Your task to perform on an android device: turn on translation in the chrome app Image 0: 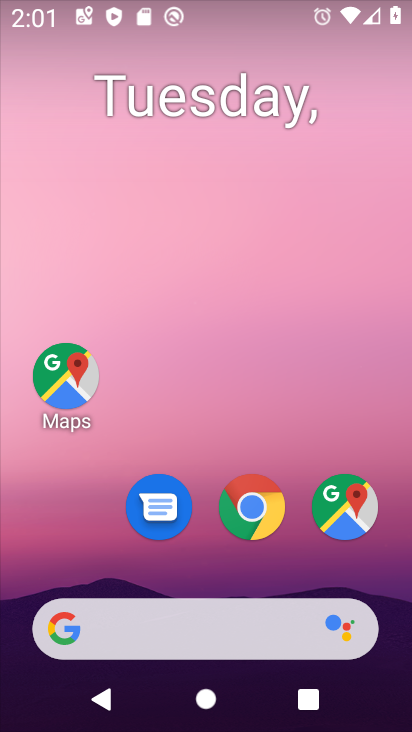
Step 0: drag from (284, 503) to (317, 229)
Your task to perform on an android device: turn on translation in the chrome app Image 1: 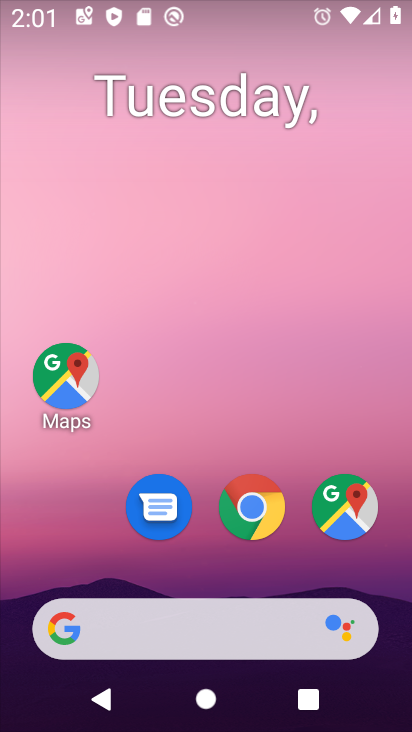
Step 1: click (255, 510)
Your task to perform on an android device: turn on translation in the chrome app Image 2: 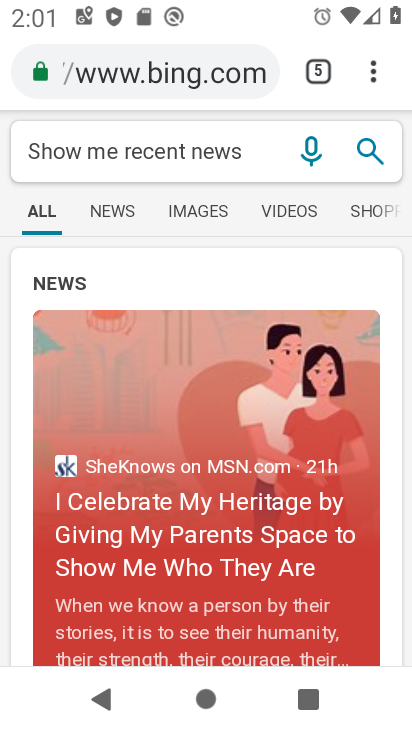
Step 2: click (371, 61)
Your task to perform on an android device: turn on translation in the chrome app Image 3: 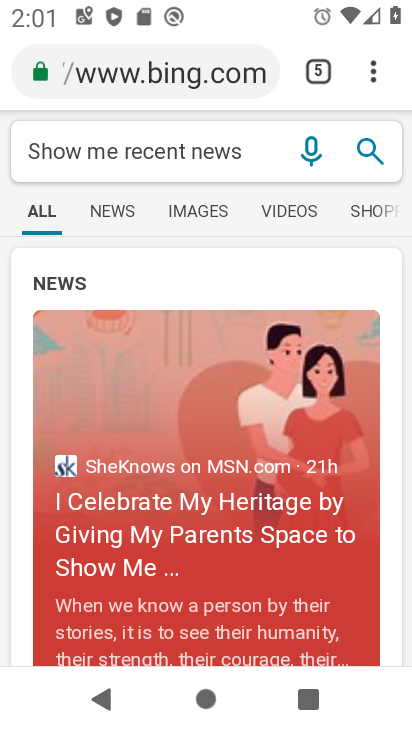
Step 3: click (367, 66)
Your task to perform on an android device: turn on translation in the chrome app Image 4: 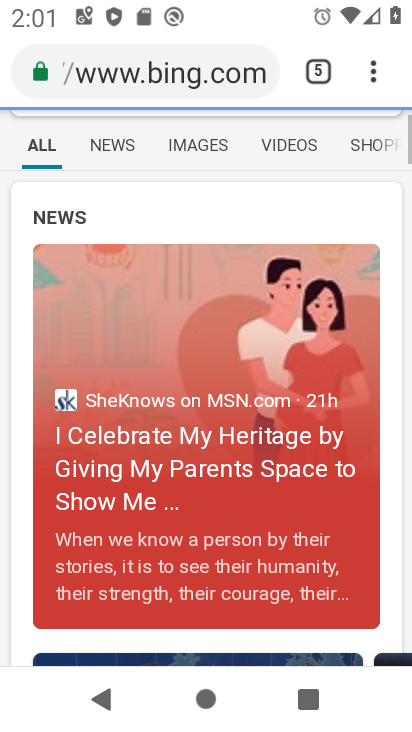
Step 4: click (367, 66)
Your task to perform on an android device: turn on translation in the chrome app Image 5: 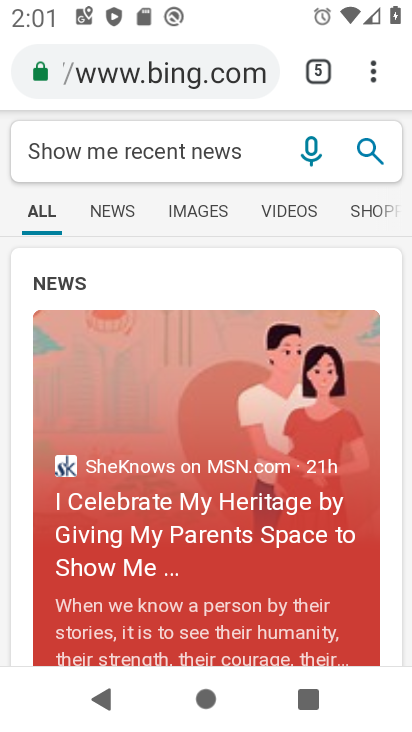
Step 5: click (378, 75)
Your task to perform on an android device: turn on translation in the chrome app Image 6: 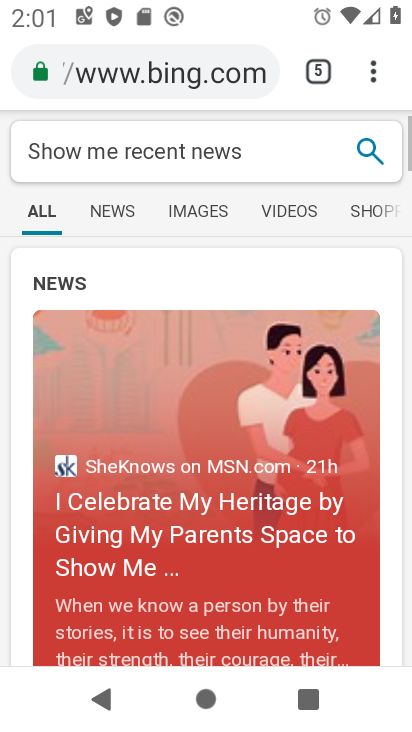
Step 6: click (381, 67)
Your task to perform on an android device: turn on translation in the chrome app Image 7: 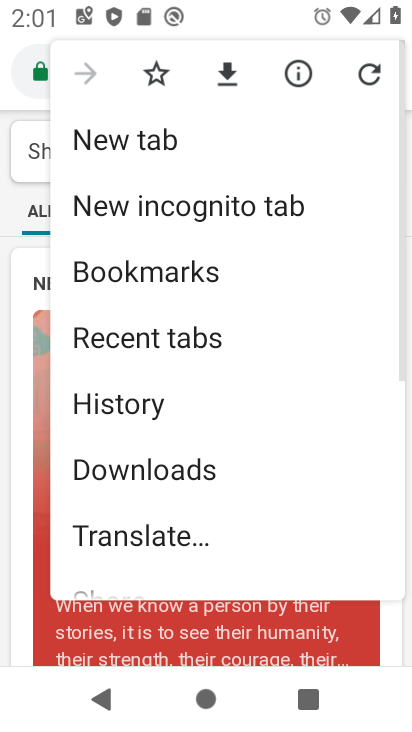
Step 7: drag from (169, 504) to (226, 195)
Your task to perform on an android device: turn on translation in the chrome app Image 8: 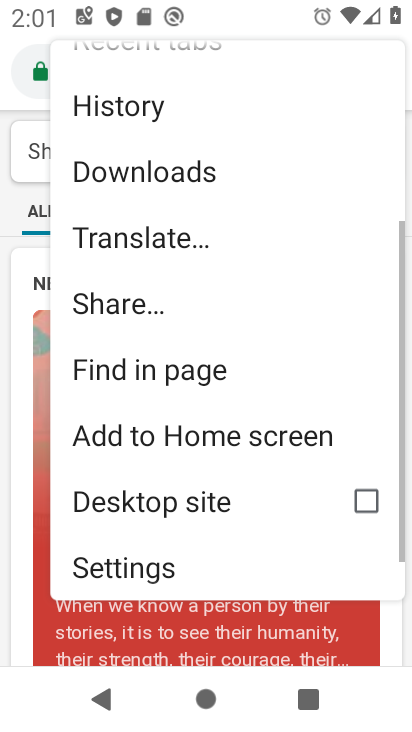
Step 8: drag from (183, 437) to (220, 319)
Your task to perform on an android device: turn on translation in the chrome app Image 9: 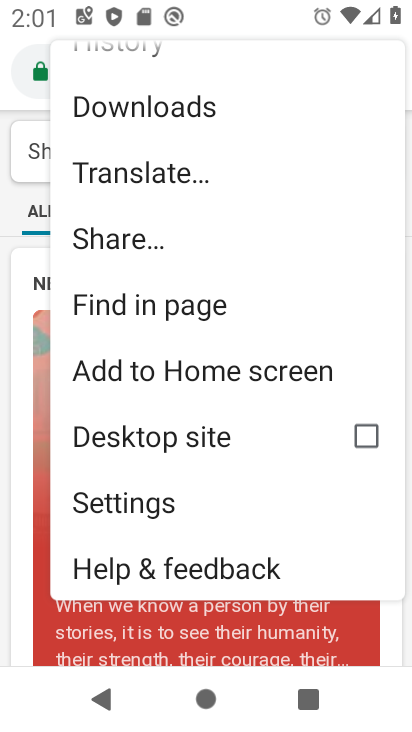
Step 9: click (172, 493)
Your task to perform on an android device: turn on translation in the chrome app Image 10: 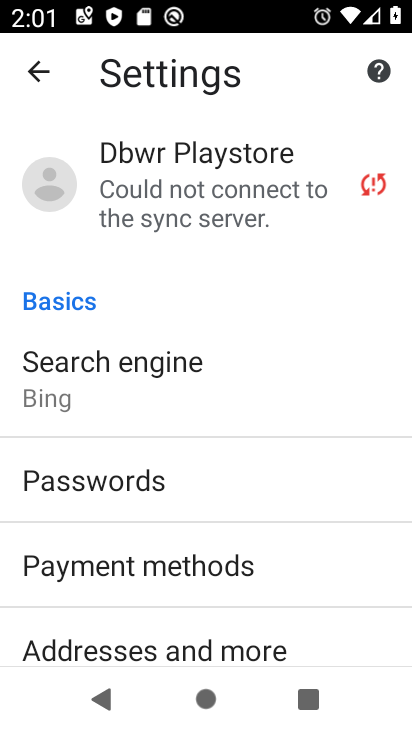
Step 10: drag from (125, 637) to (247, 300)
Your task to perform on an android device: turn on translation in the chrome app Image 11: 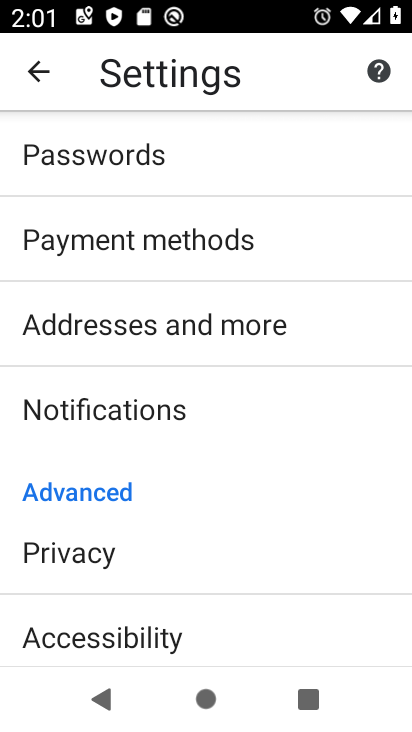
Step 11: drag from (179, 568) to (239, 307)
Your task to perform on an android device: turn on translation in the chrome app Image 12: 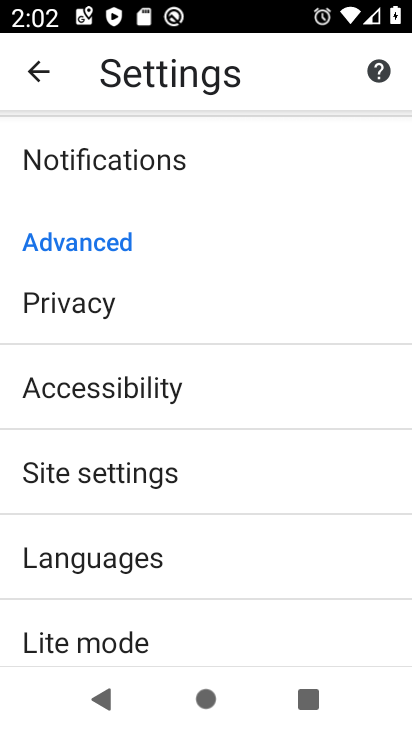
Step 12: click (169, 541)
Your task to perform on an android device: turn on translation in the chrome app Image 13: 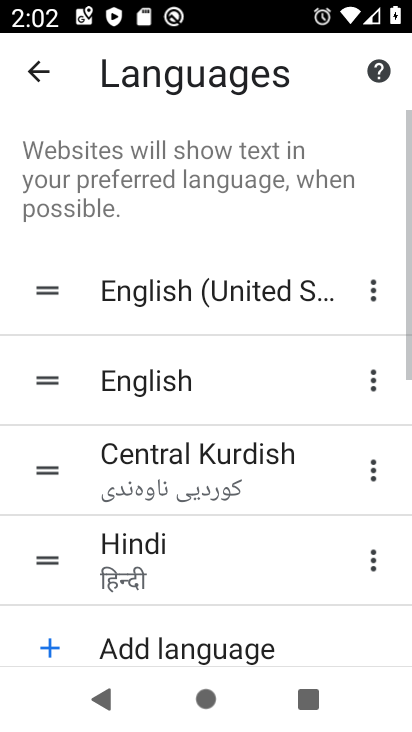
Step 13: task complete